Your task to perform on an android device: Open Reddit.com Image 0: 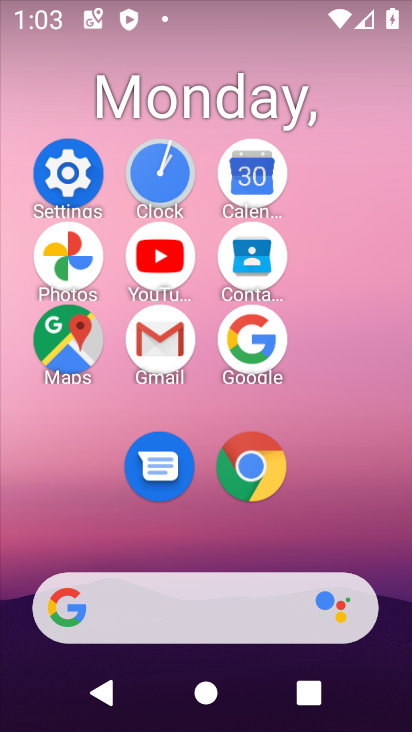
Step 0: click (276, 447)
Your task to perform on an android device: Open Reddit.com Image 1: 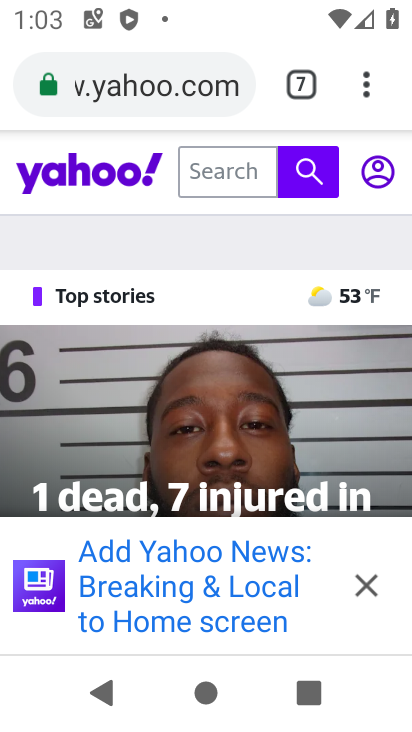
Step 1: click (319, 153)
Your task to perform on an android device: Open Reddit.com Image 2: 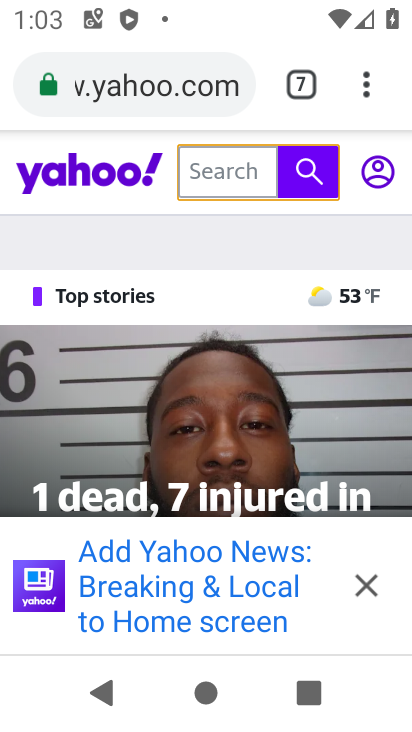
Step 2: click (298, 106)
Your task to perform on an android device: Open Reddit.com Image 3: 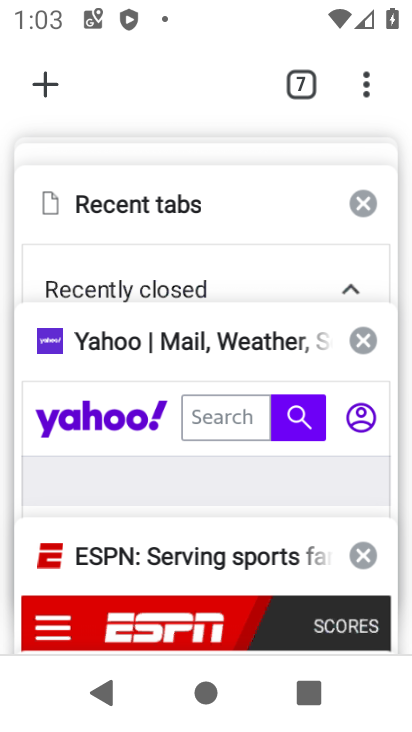
Step 3: click (57, 96)
Your task to perform on an android device: Open Reddit.com Image 4: 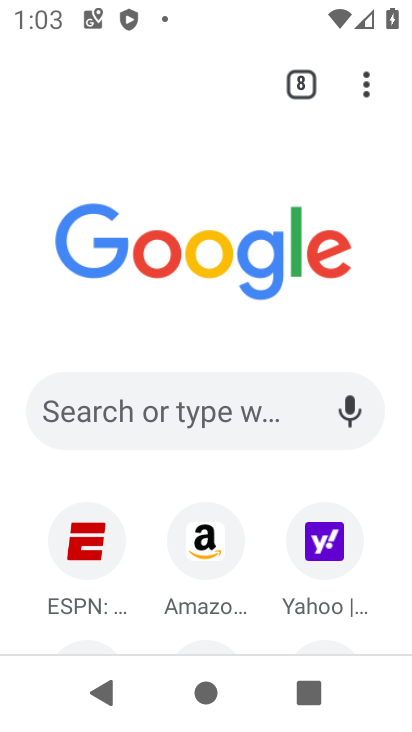
Step 4: click (247, 434)
Your task to perform on an android device: Open Reddit.com Image 5: 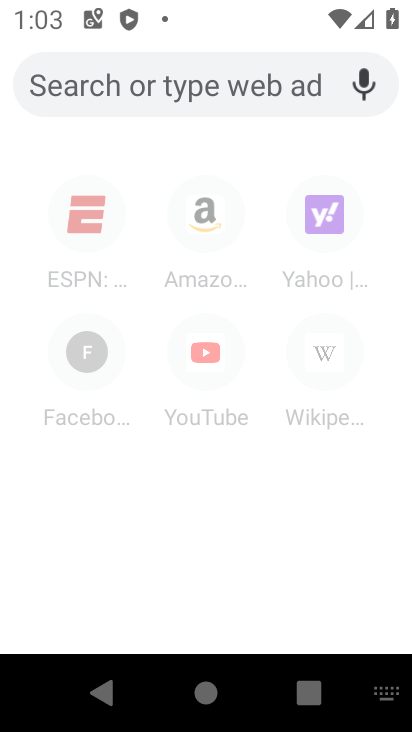
Step 5: type "reddit"
Your task to perform on an android device: Open Reddit.com Image 6: 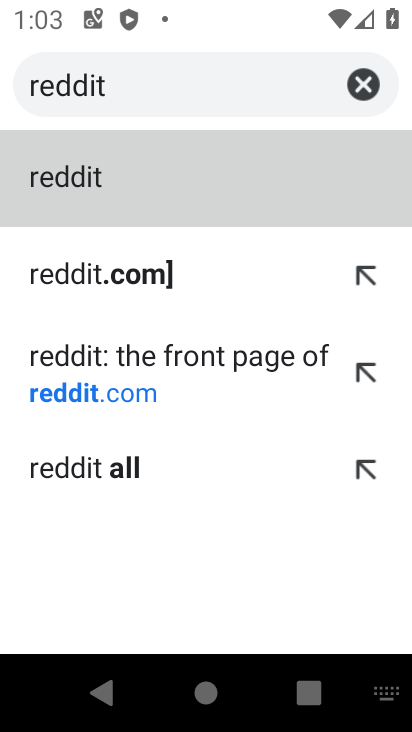
Step 6: click (125, 361)
Your task to perform on an android device: Open Reddit.com Image 7: 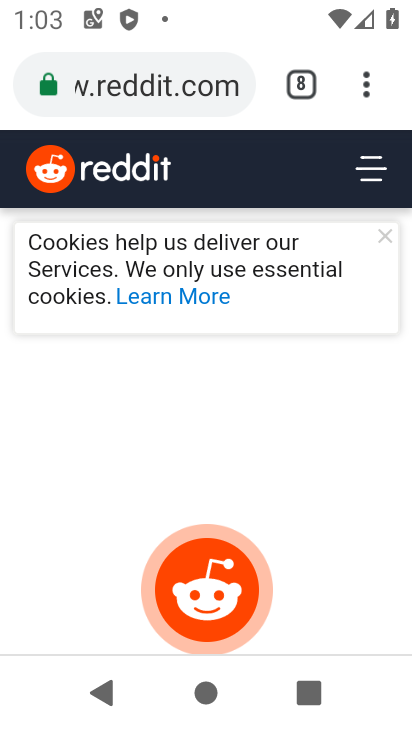
Step 7: task complete